Your task to perform on an android device: Open my contact list Image 0: 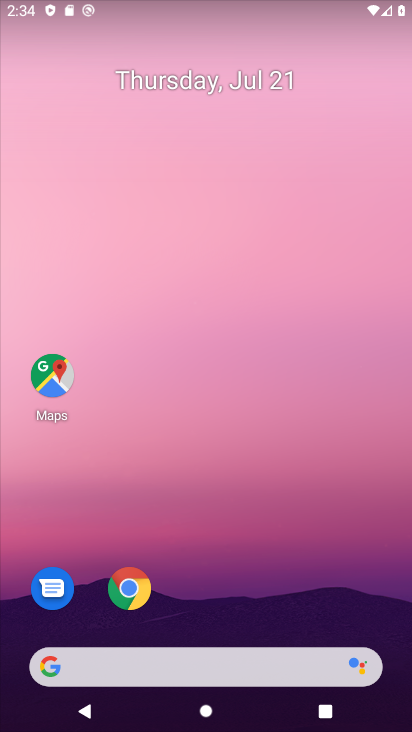
Step 0: drag from (244, 581) to (208, 93)
Your task to perform on an android device: Open my contact list Image 1: 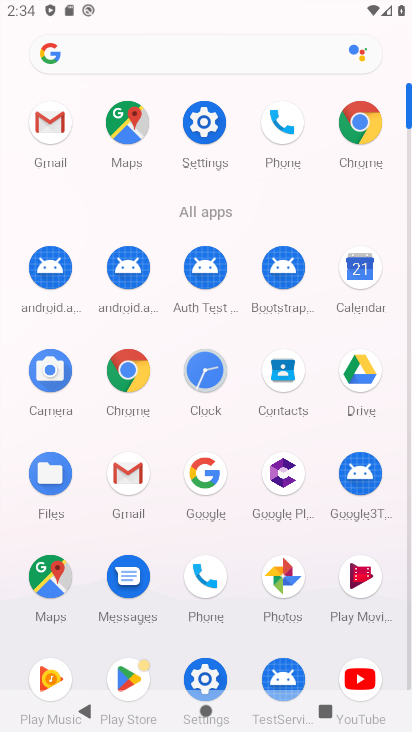
Step 1: click (281, 379)
Your task to perform on an android device: Open my contact list Image 2: 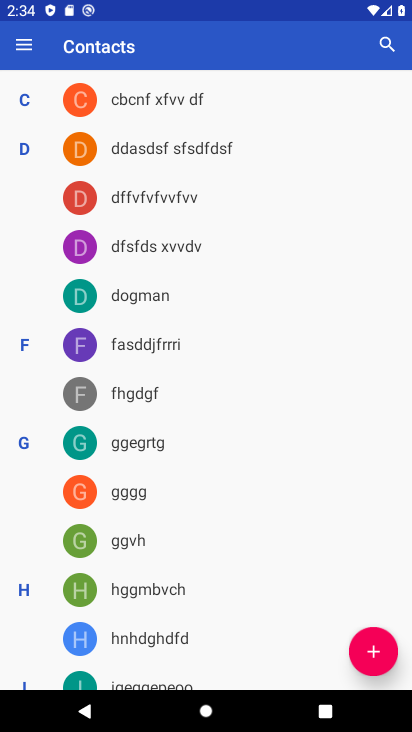
Step 2: task complete